Your task to perform on an android device: Check the news Image 0: 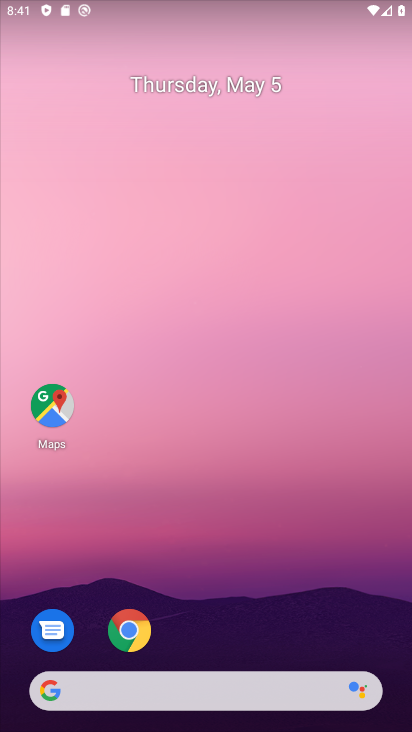
Step 0: drag from (245, 651) to (316, 9)
Your task to perform on an android device: Check the news Image 1: 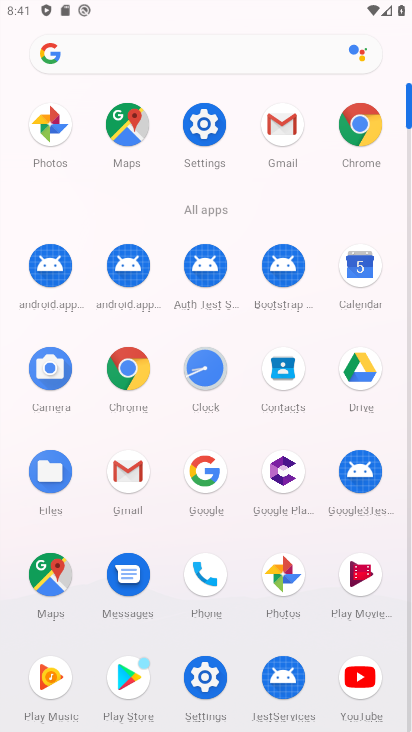
Step 1: click (169, 53)
Your task to perform on an android device: Check the news Image 2: 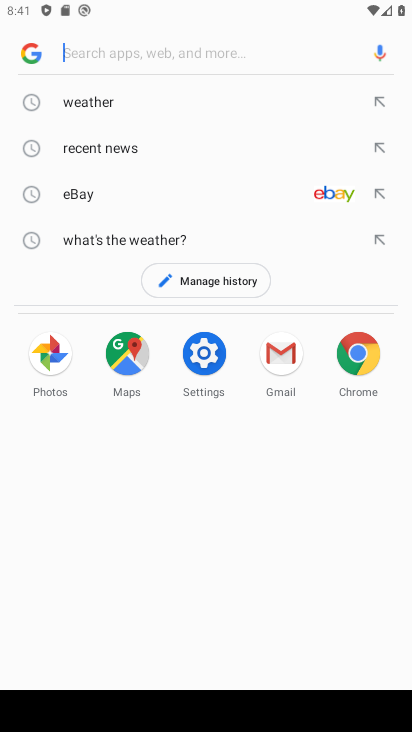
Step 2: type "news"
Your task to perform on an android device: Check the news Image 3: 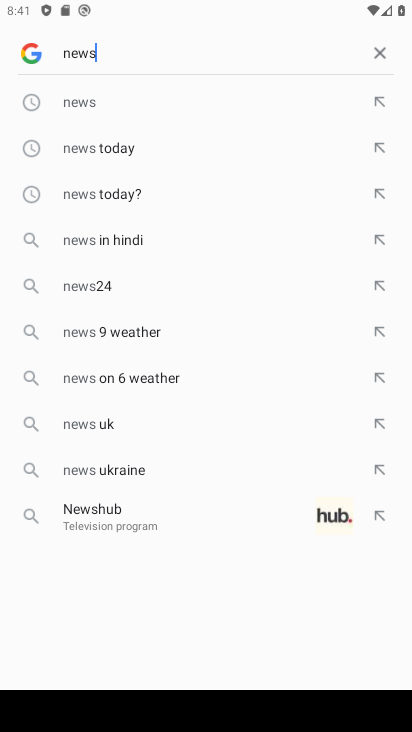
Step 3: click (67, 90)
Your task to perform on an android device: Check the news Image 4: 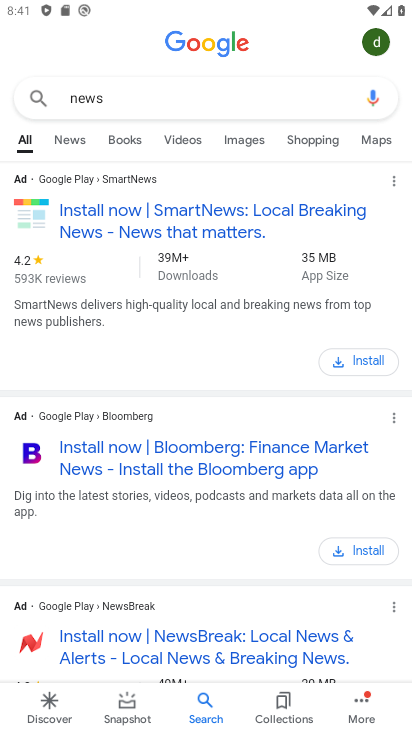
Step 4: click (72, 149)
Your task to perform on an android device: Check the news Image 5: 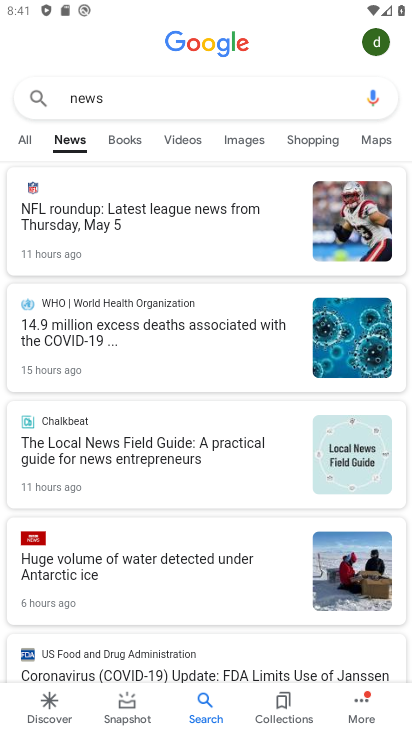
Step 5: task complete